Your task to perform on an android device: Go to calendar. Show me events next week Image 0: 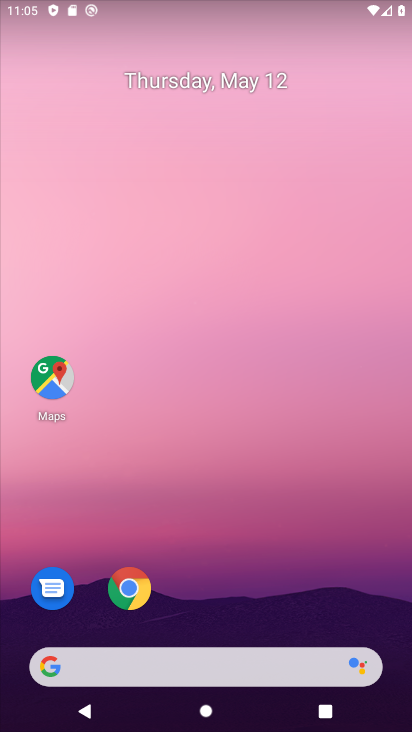
Step 0: drag from (191, 634) to (181, 48)
Your task to perform on an android device: Go to calendar. Show me events next week Image 1: 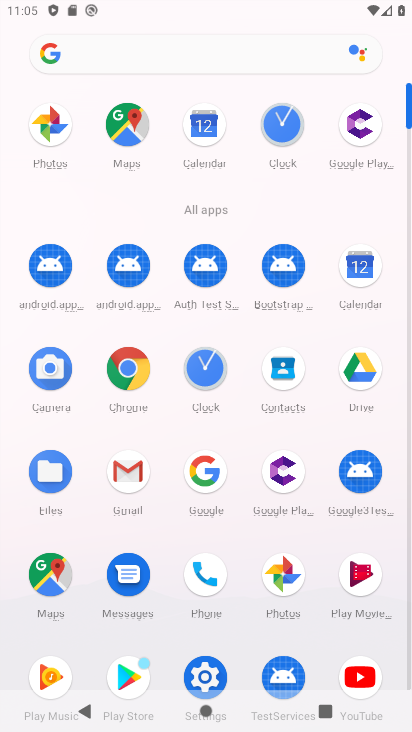
Step 1: click (363, 266)
Your task to perform on an android device: Go to calendar. Show me events next week Image 2: 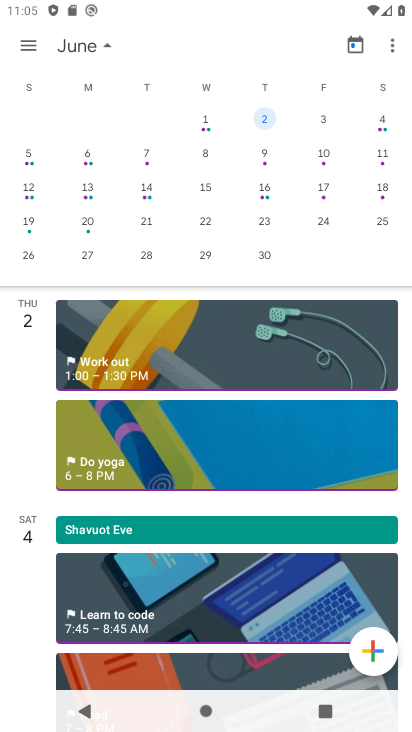
Step 2: drag from (56, 138) to (398, 235)
Your task to perform on an android device: Go to calendar. Show me events next week Image 3: 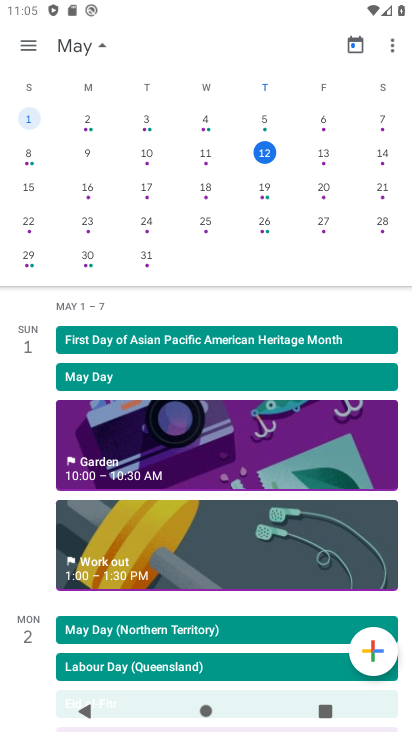
Step 3: click (144, 198)
Your task to perform on an android device: Go to calendar. Show me events next week Image 4: 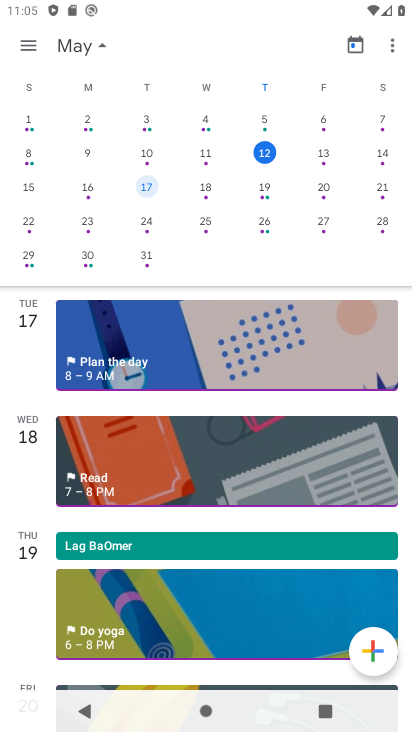
Step 4: task complete